Your task to perform on an android device: What's on my calendar today? Image 0: 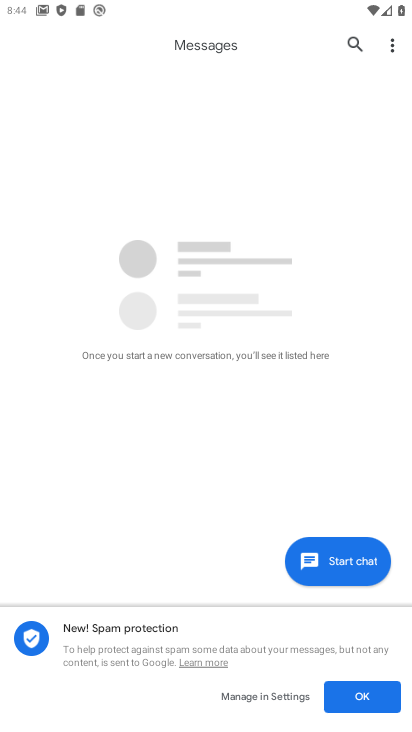
Step 0: press home button
Your task to perform on an android device: What's on my calendar today? Image 1: 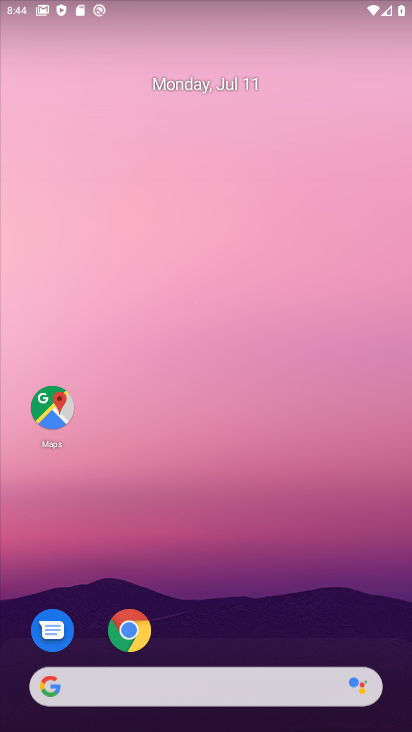
Step 1: drag from (211, 367) to (260, 87)
Your task to perform on an android device: What's on my calendar today? Image 2: 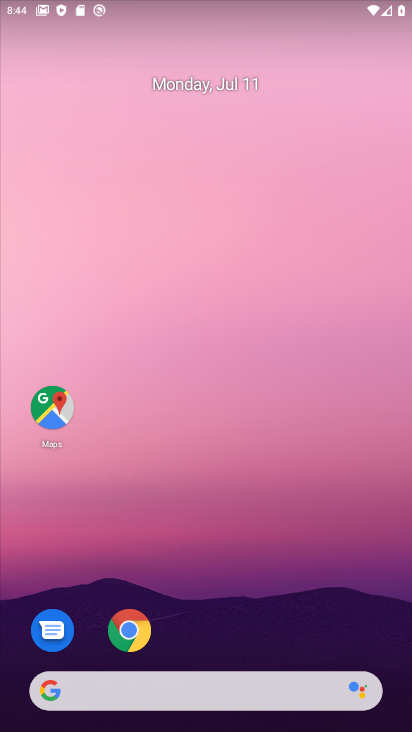
Step 2: drag from (175, 662) to (255, 77)
Your task to perform on an android device: What's on my calendar today? Image 3: 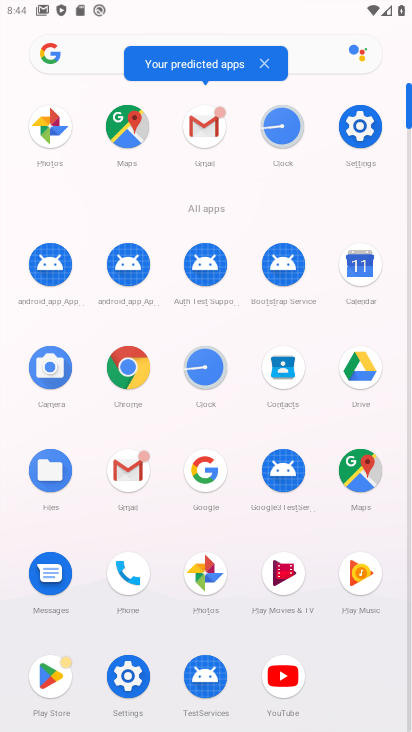
Step 3: click (360, 267)
Your task to perform on an android device: What's on my calendar today? Image 4: 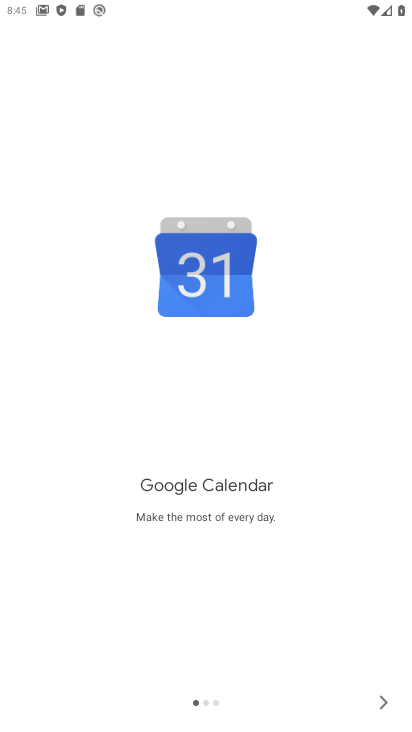
Step 4: click (384, 703)
Your task to perform on an android device: What's on my calendar today? Image 5: 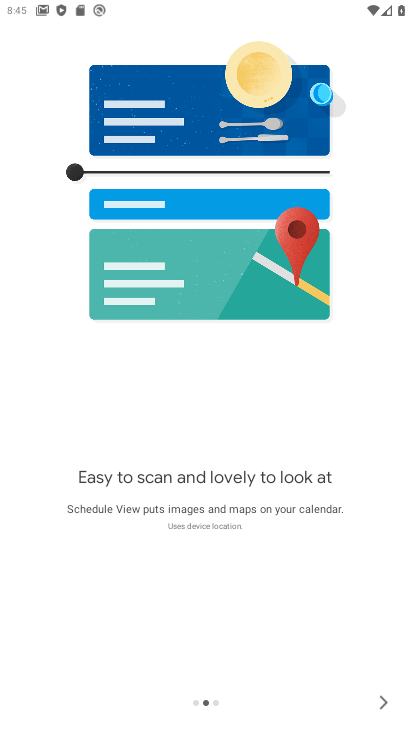
Step 5: click (383, 703)
Your task to perform on an android device: What's on my calendar today? Image 6: 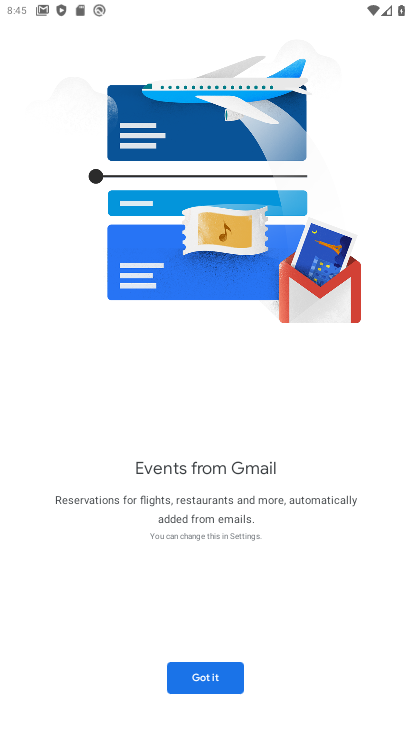
Step 6: click (235, 683)
Your task to perform on an android device: What's on my calendar today? Image 7: 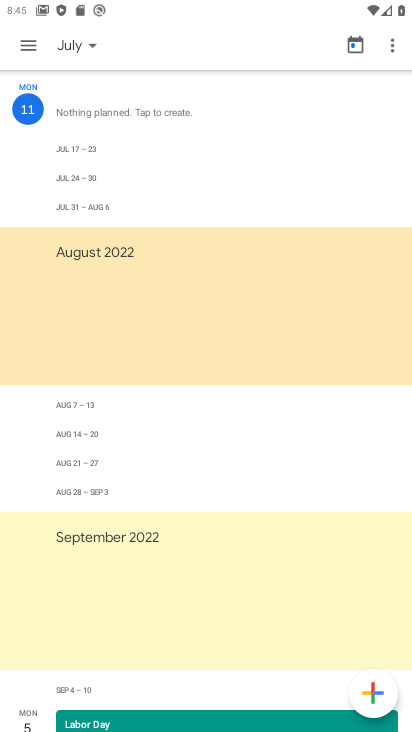
Step 7: click (28, 107)
Your task to perform on an android device: What's on my calendar today? Image 8: 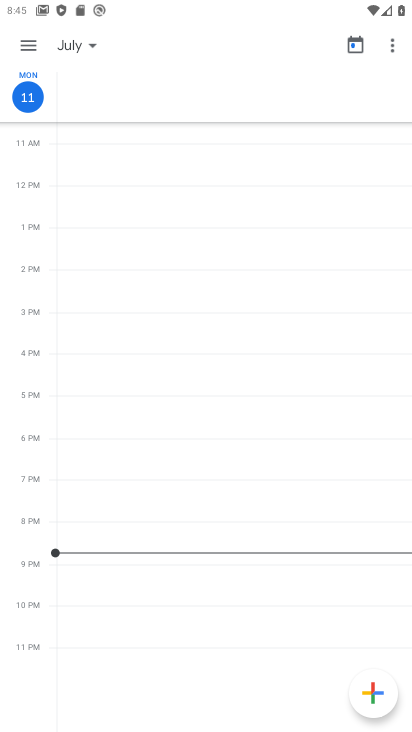
Step 8: task complete